Your task to perform on an android device: delete browsing data in the chrome app Image 0: 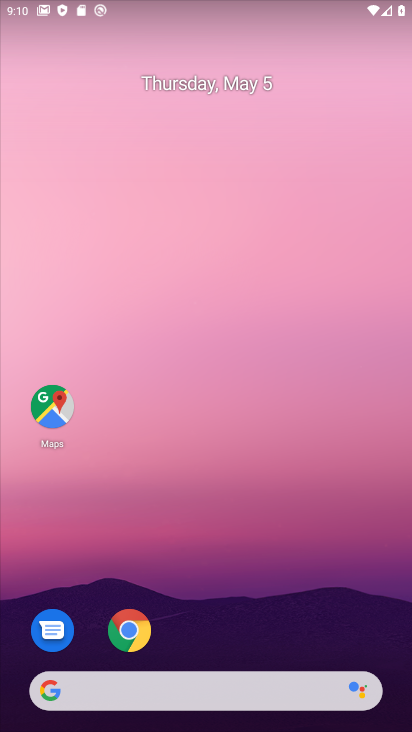
Step 0: click (135, 626)
Your task to perform on an android device: delete browsing data in the chrome app Image 1: 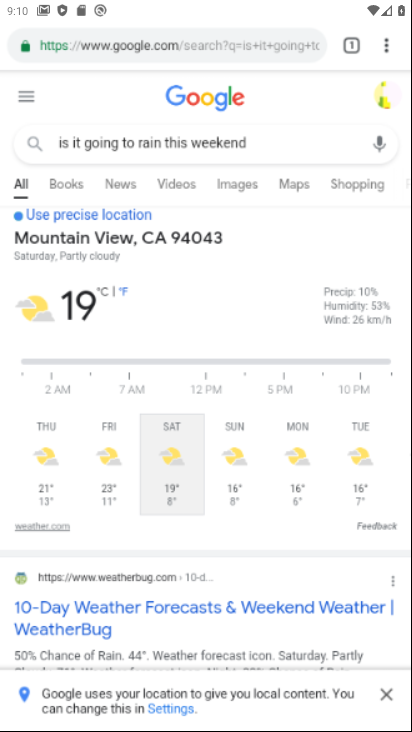
Step 1: click (388, 44)
Your task to perform on an android device: delete browsing data in the chrome app Image 2: 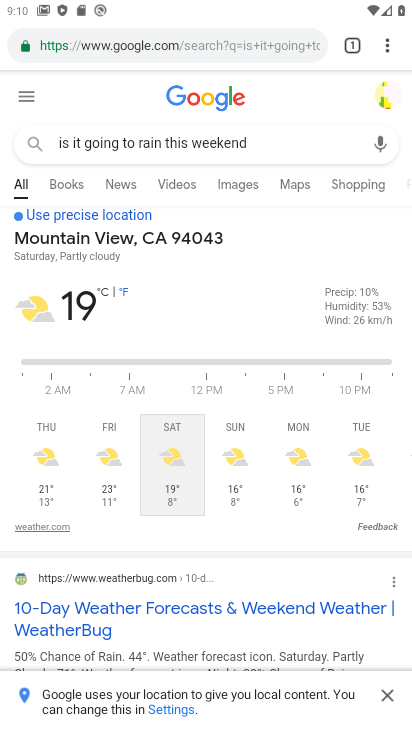
Step 2: click (388, 44)
Your task to perform on an android device: delete browsing data in the chrome app Image 3: 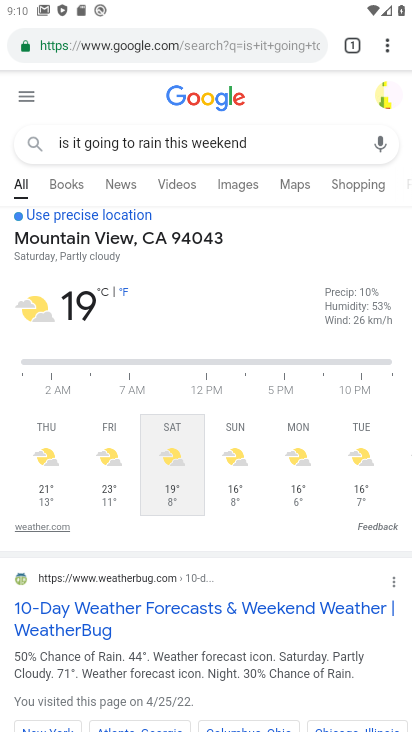
Step 3: drag from (388, 44) to (236, 251)
Your task to perform on an android device: delete browsing data in the chrome app Image 4: 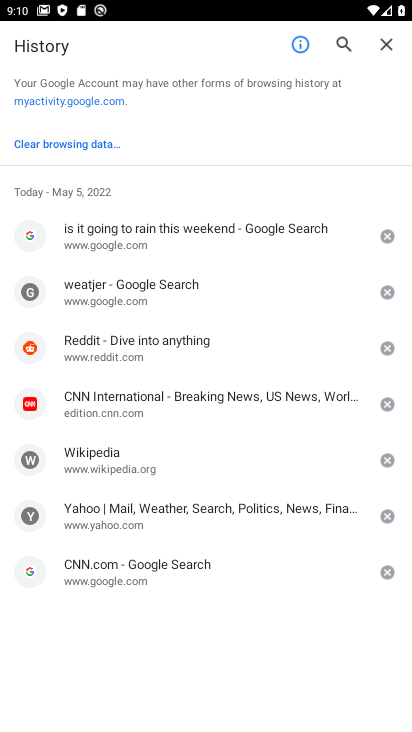
Step 4: click (71, 147)
Your task to perform on an android device: delete browsing data in the chrome app Image 5: 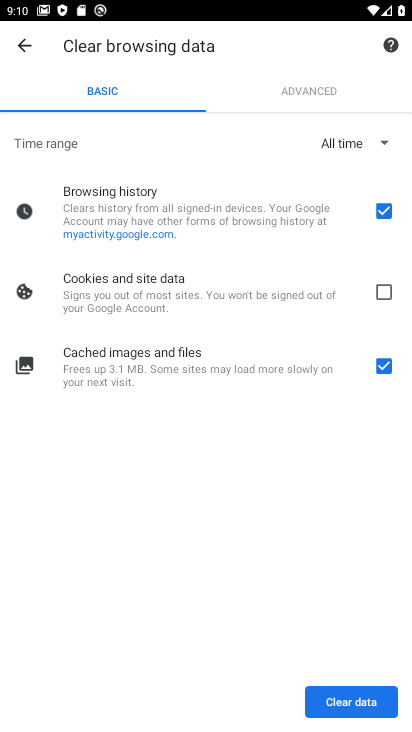
Step 5: click (346, 694)
Your task to perform on an android device: delete browsing data in the chrome app Image 6: 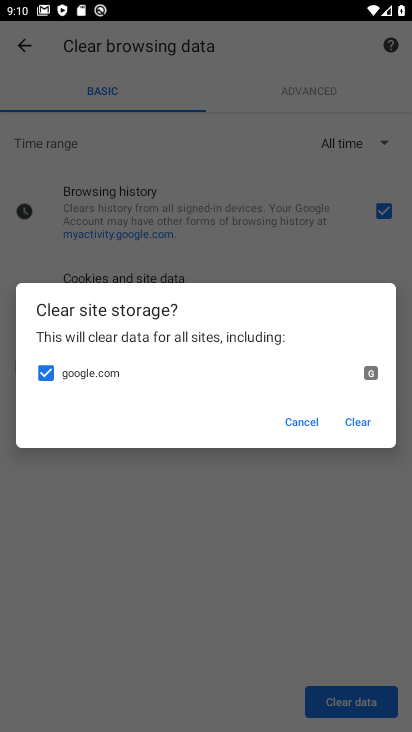
Step 6: click (354, 421)
Your task to perform on an android device: delete browsing data in the chrome app Image 7: 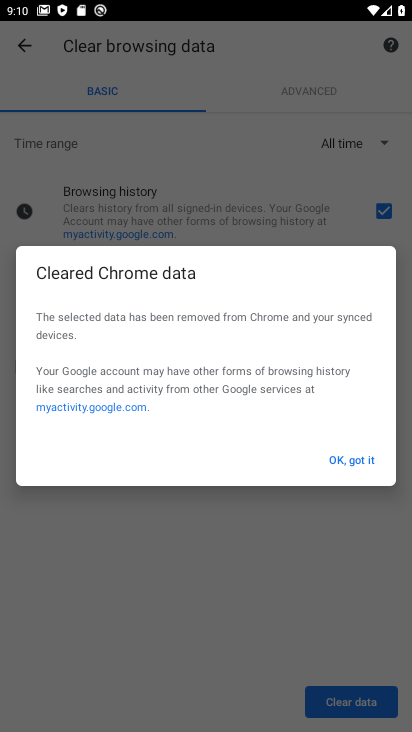
Step 7: click (354, 457)
Your task to perform on an android device: delete browsing data in the chrome app Image 8: 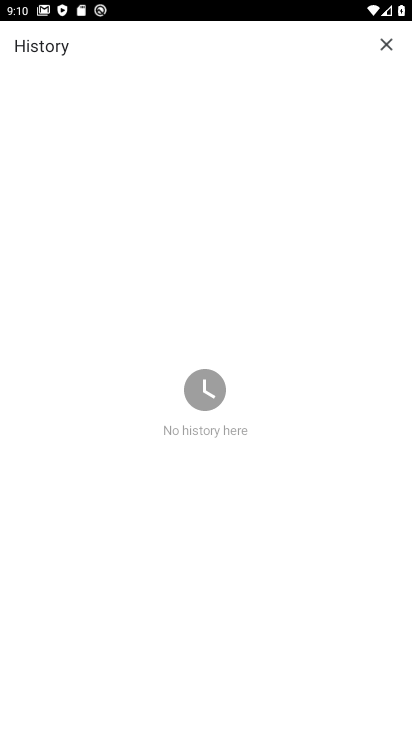
Step 8: task complete